Your task to perform on an android device: turn off priority inbox in the gmail app Image 0: 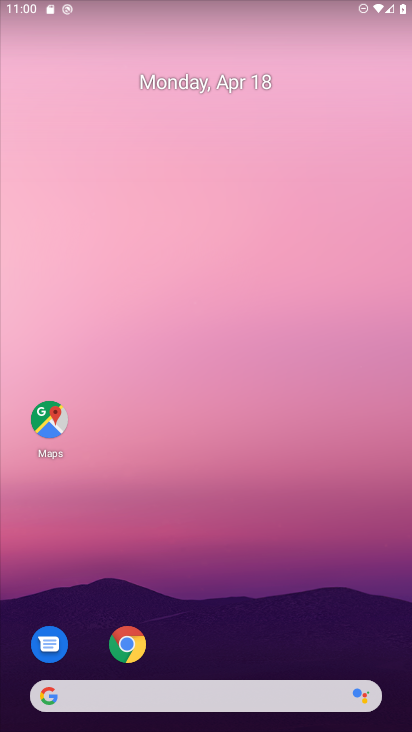
Step 0: drag from (191, 567) to (227, 113)
Your task to perform on an android device: turn off priority inbox in the gmail app Image 1: 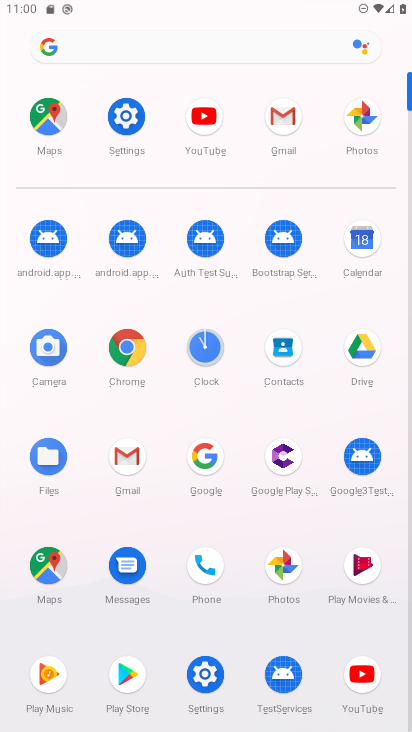
Step 1: click (294, 113)
Your task to perform on an android device: turn off priority inbox in the gmail app Image 2: 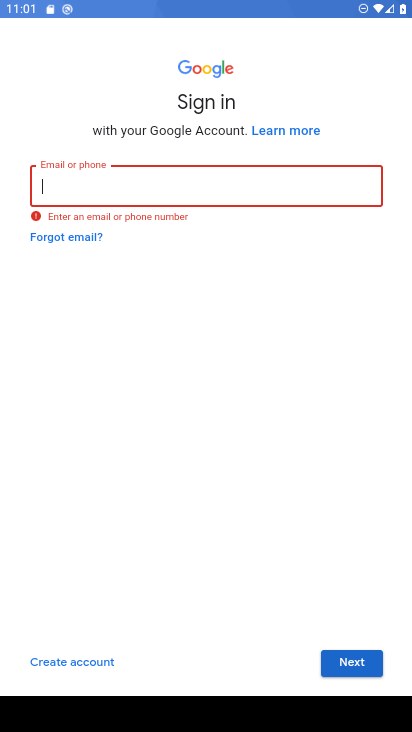
Step 2: task complete